Your task to perform on an android device: see tabs open on other devices in the chrome app Image 0: 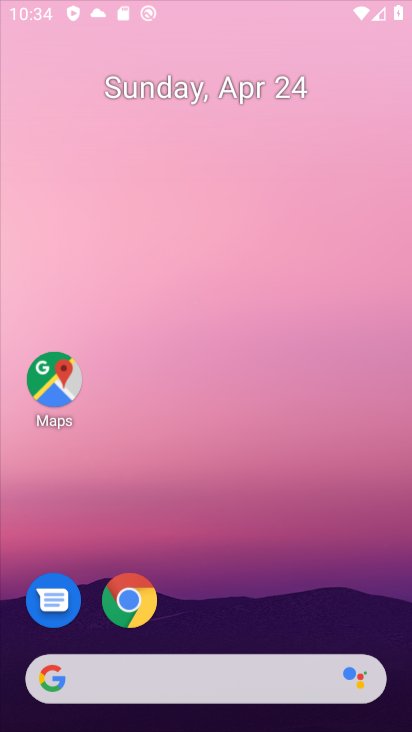
Step 0: drag from (216, 599) to (132, 17)
Your task to perform on an android device: see tabs open on other devices in the chrome app Image 1: 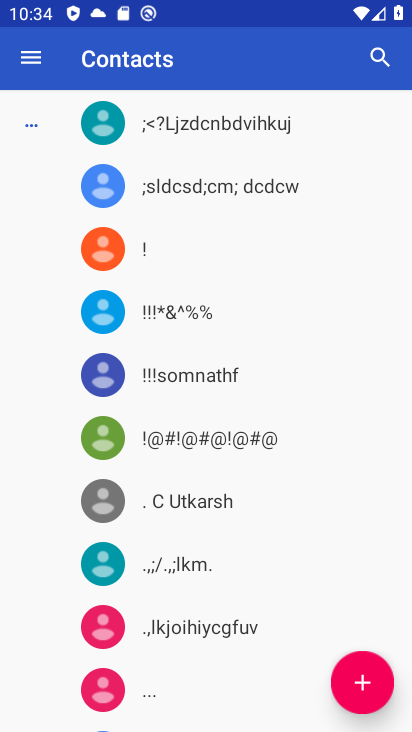
Step 1: press home button
Your task to perform on an android device: see tabs open on other devices in the chrome app Image 2: 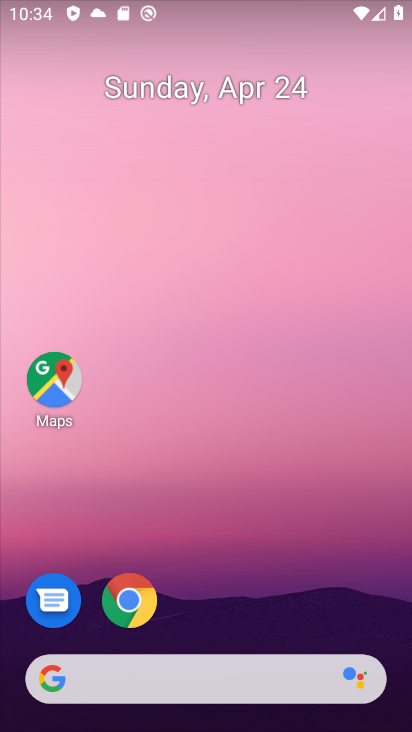
Step 2: click (123, 606)
Your task to perform on an android device: see tabs open on other devices in the chrome app Image 3: 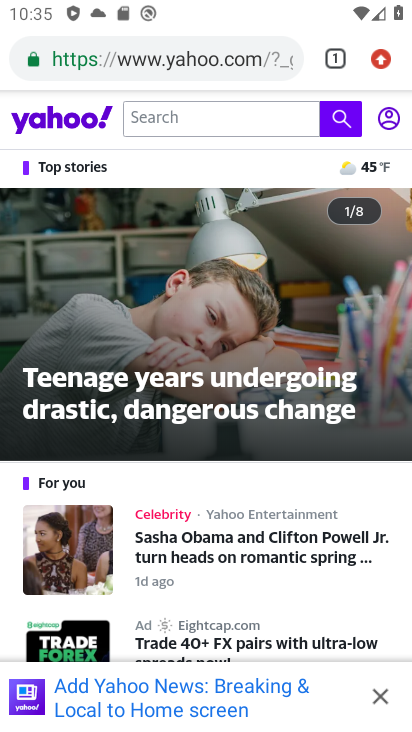
Step 3: click (382, 58)
Your task to perform on an android device: see tabs open on other devices in the chrome app Image 4: 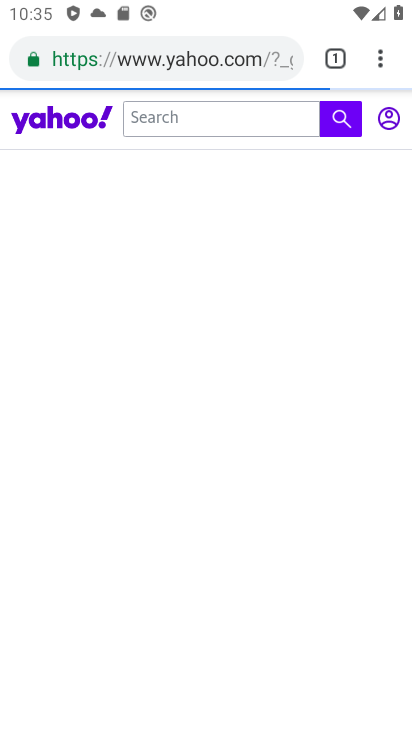
Step 4: click (380, 61)
Your task to perform on an android device: see tabs open on other devices in the chrome app Image 5: 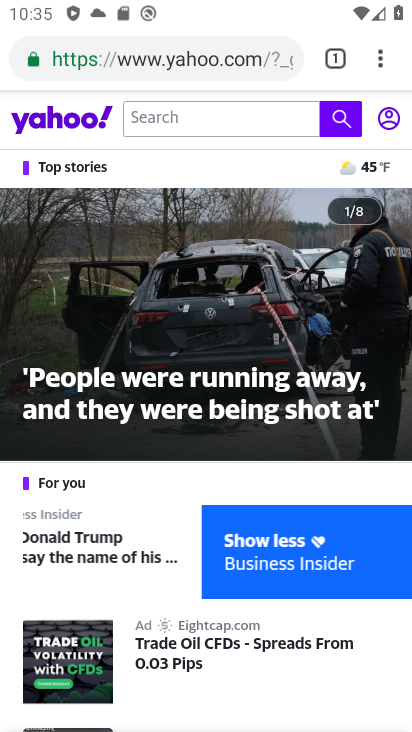
Step 5: click (376, 59)
Your task to perform on an android device: see tabs open on other devices in the chrome app Image 6: 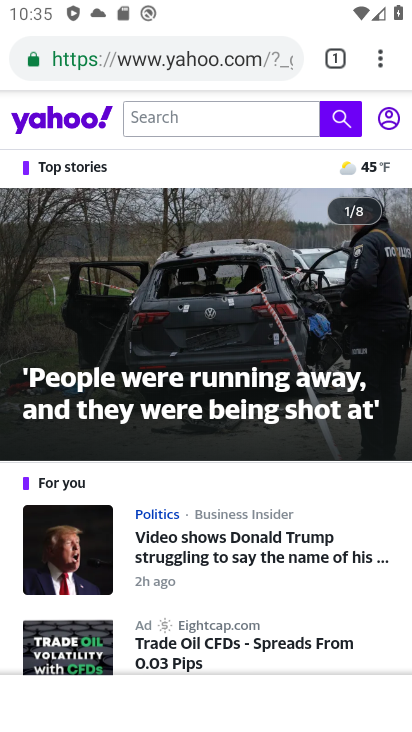
Step 6: click (378, 57)
Your task to perform on an android device: see tabs open on other devices in the chrome app Image 7: 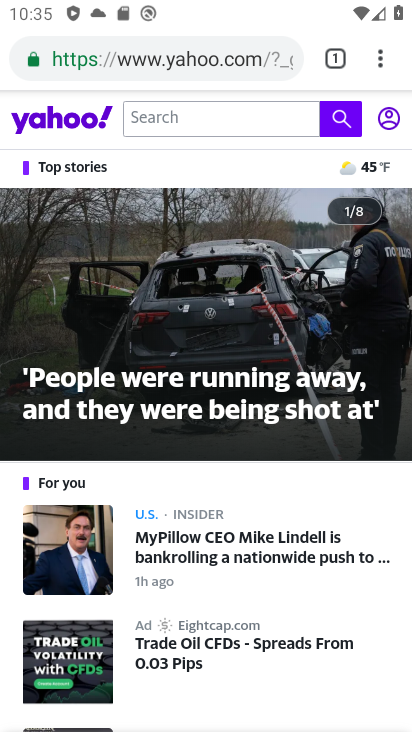
Step 7: click (382, 68)
Your task to perform on an android device: see tabs open on other devices in the chrome app Image 8: 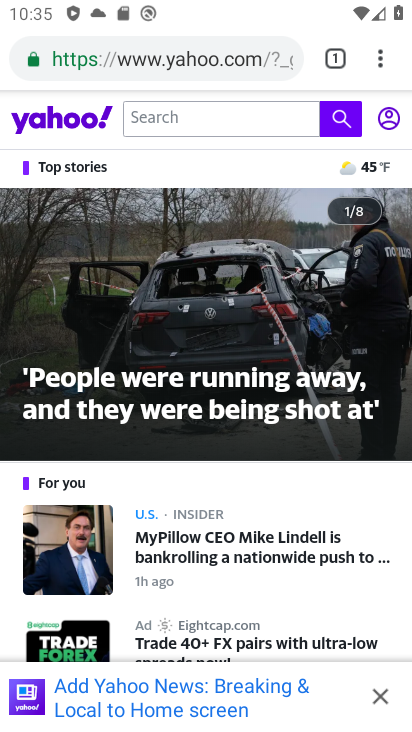
Step 8: click (381, 60)
Your task to perform on an android device: see tabs open on other devices in the chrome app Image 9: 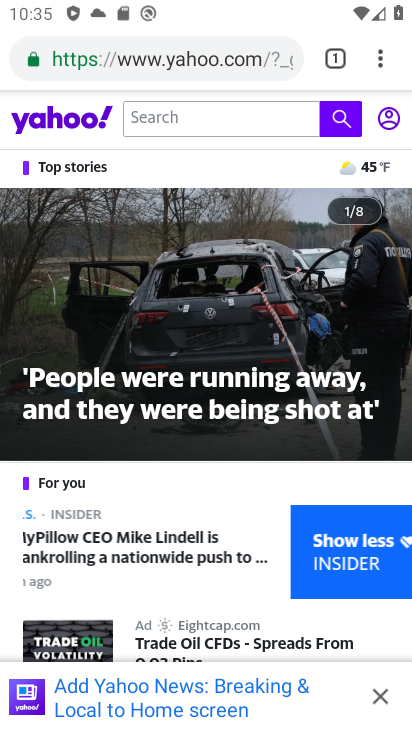
Step 9: click (380, 65)
Your task to perform on an android device: see tabs open on other devices in the chrome app Image 10: 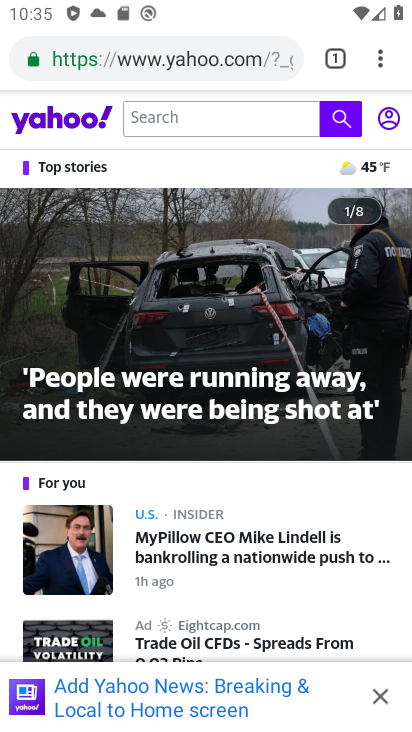
Step 10: click (381, 69)
Your task to perform on an android device: see tabs open on other devices in the chrome app Image 11: 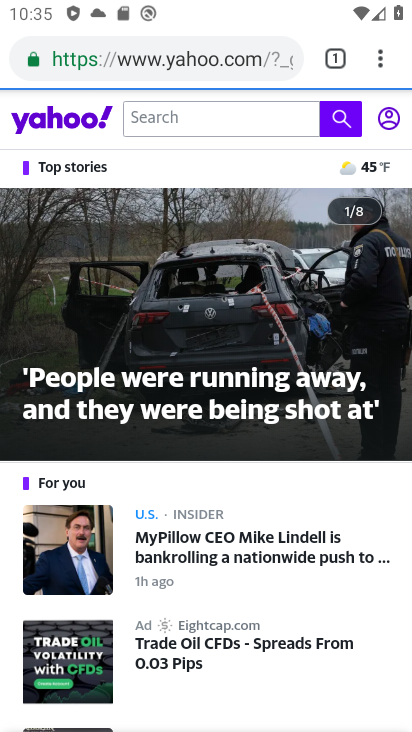
Step 11: click (381, 58)
Your task to perform on an android device: see tabs open on other devices in the chrome app Image 12: 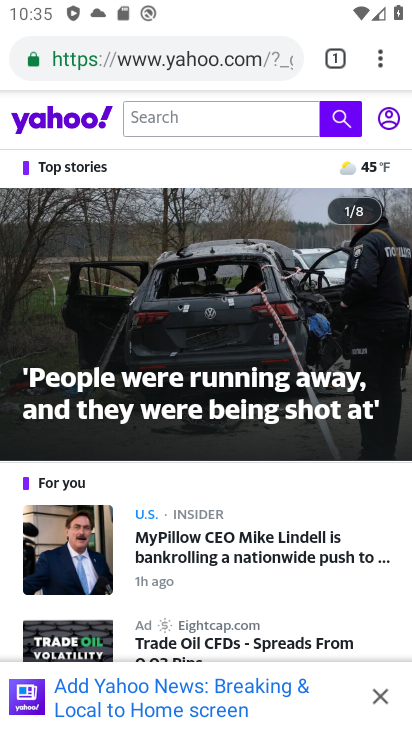
Step 12: click (379, 59)
Your task to perform on an android device: see tabs open on other devices in the chrome app Image 13: 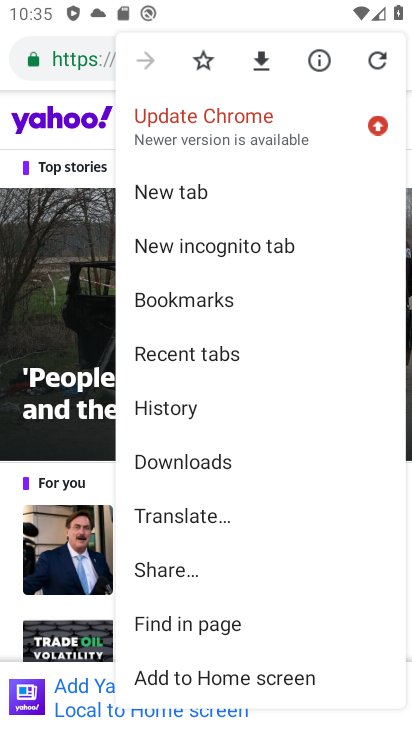
Step 13: click (182, 347)
Your task to perform on an android device: see tabs open on other devices in the chrome app Image 14: 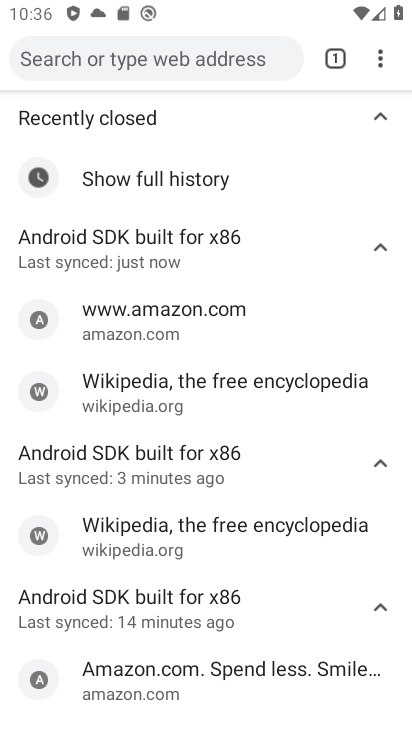
Step 14: task complete